Your task to perform on an android device: set the stopwatch Image 0: 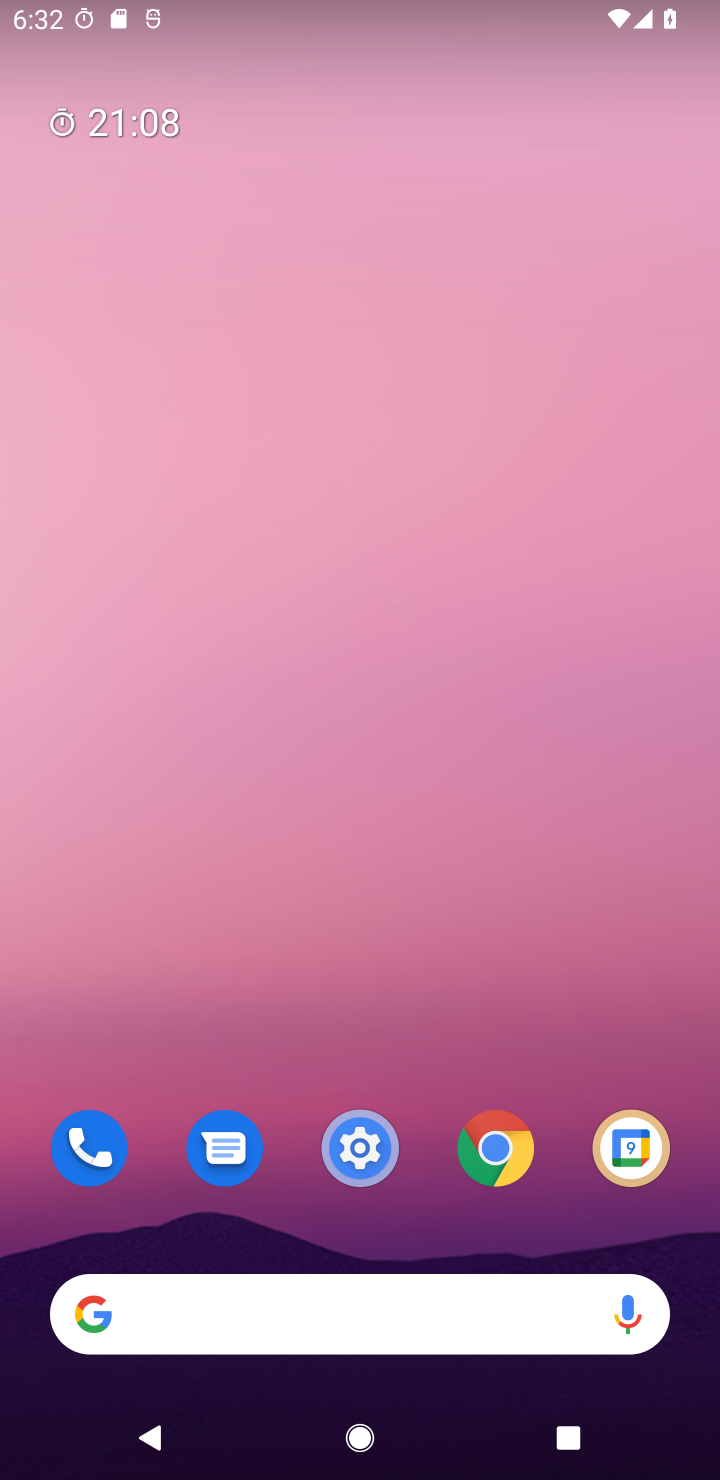
Step 0: drag from (304, 934) to (304, 263)
Your task to perform on an android device: set the stopwatch Image 1: 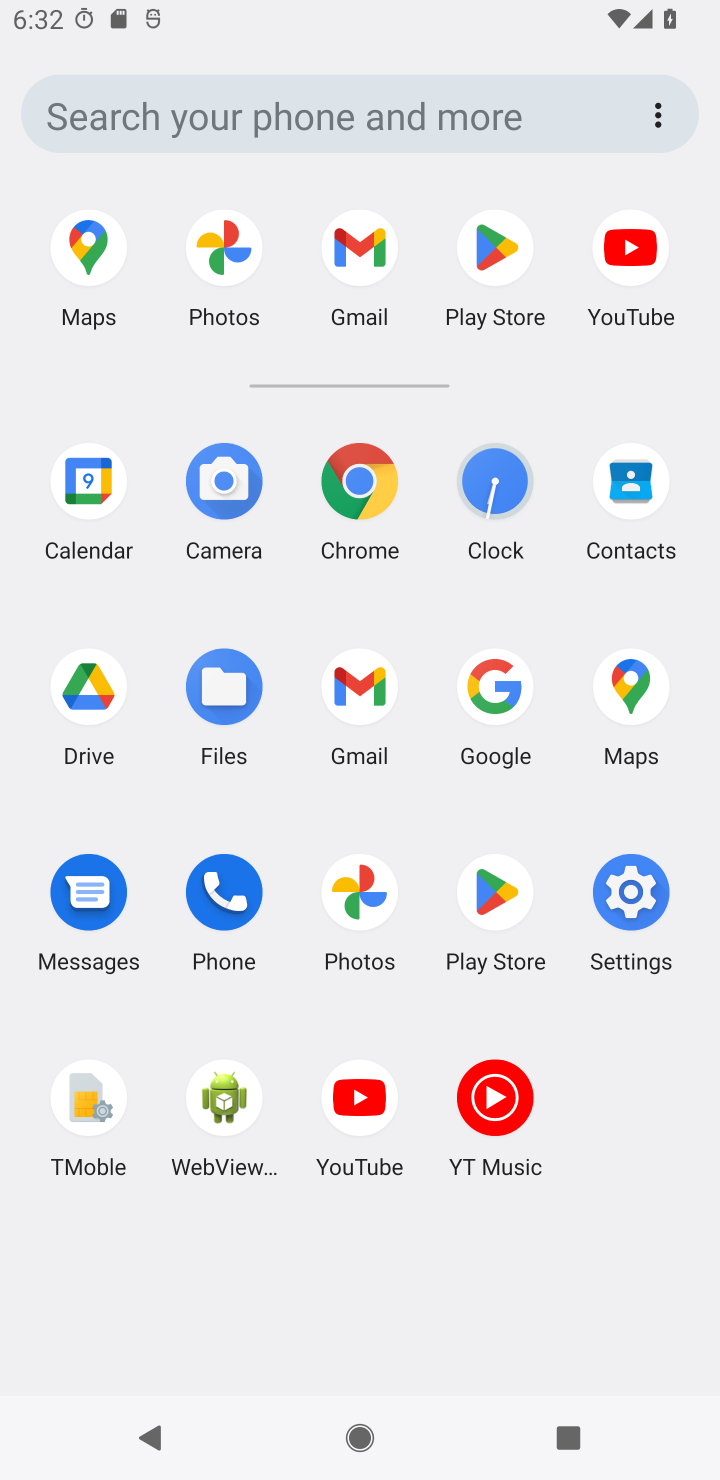
Step 1: click (496, 498)
Your task to perform on an android device: set the stopwatch Image 2: 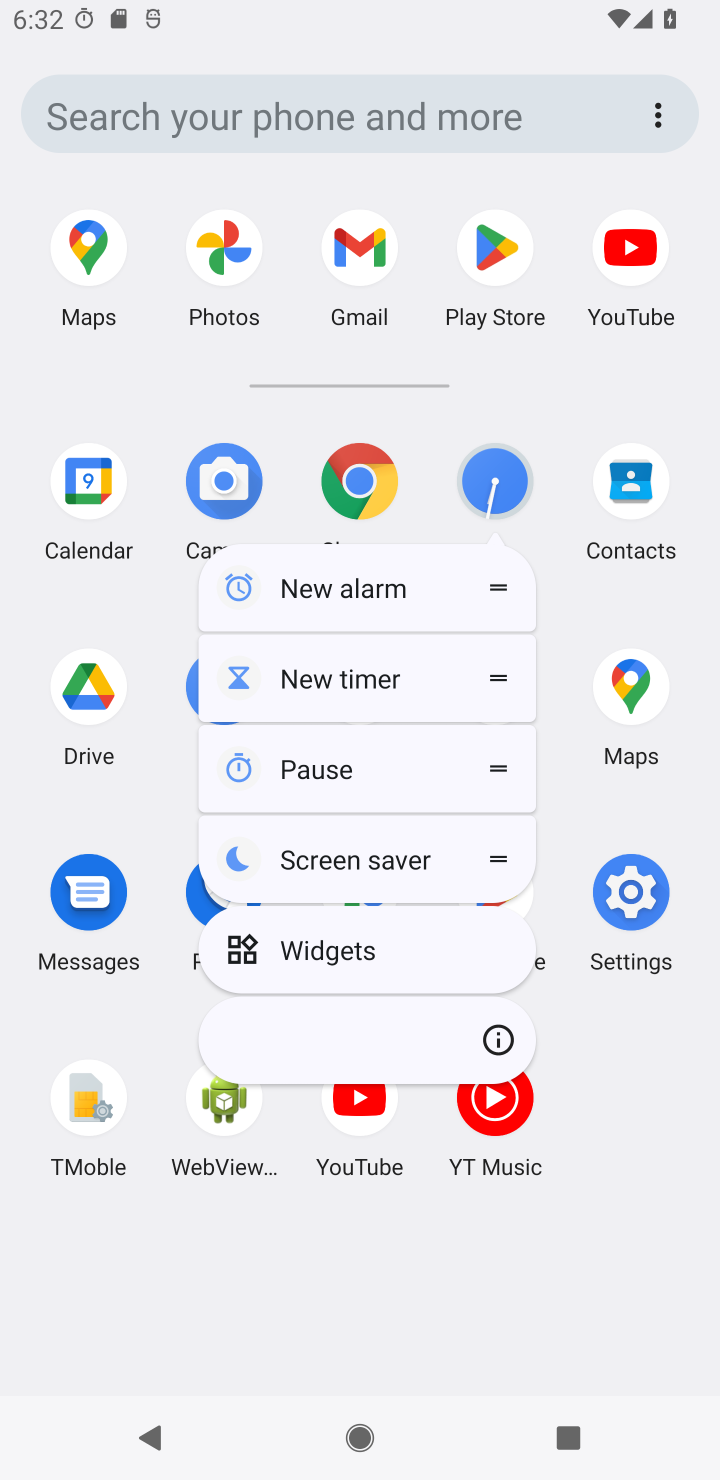
Step 2: click (494, 474)
Your task to perform on an android device: set the stopwatch Image 3: 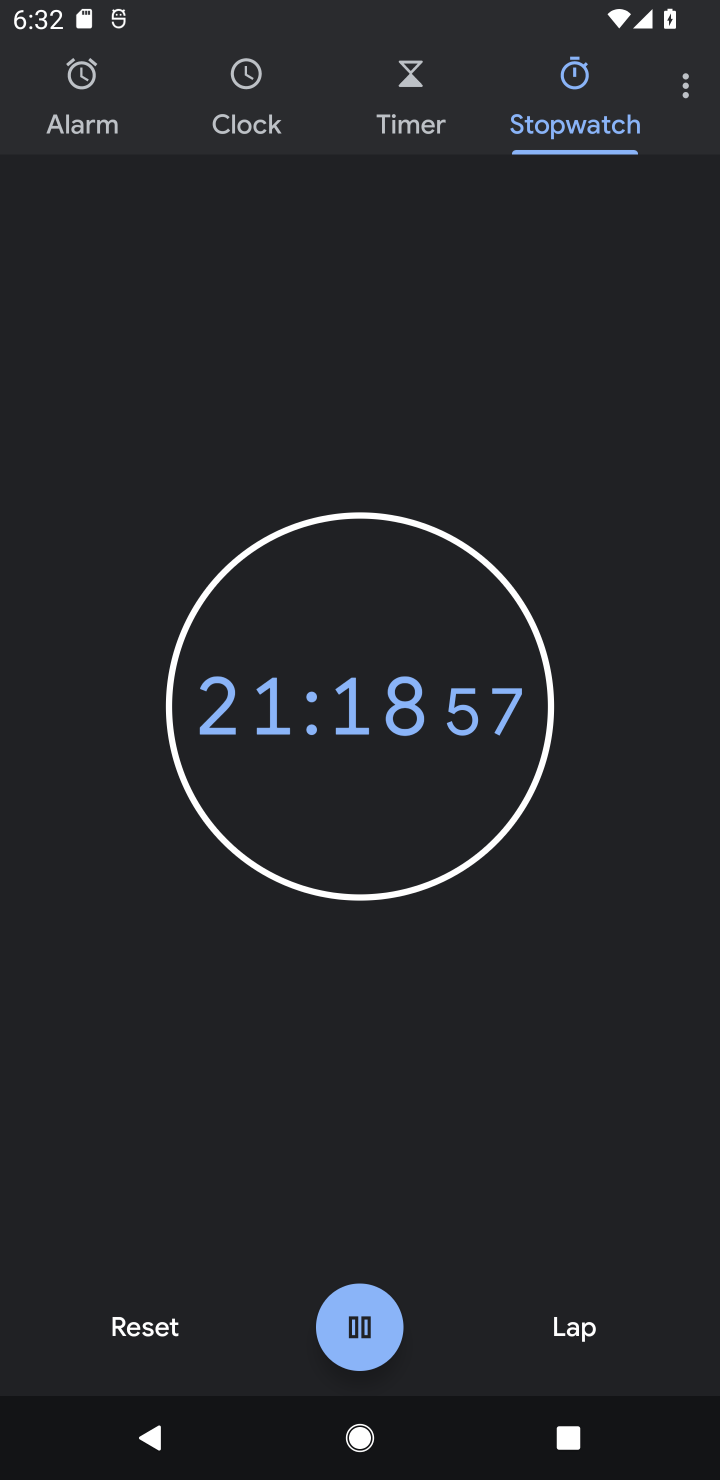
Step 3: click (138, 1331)
Your task to perform on an android device: set the stopwatch Image 4: 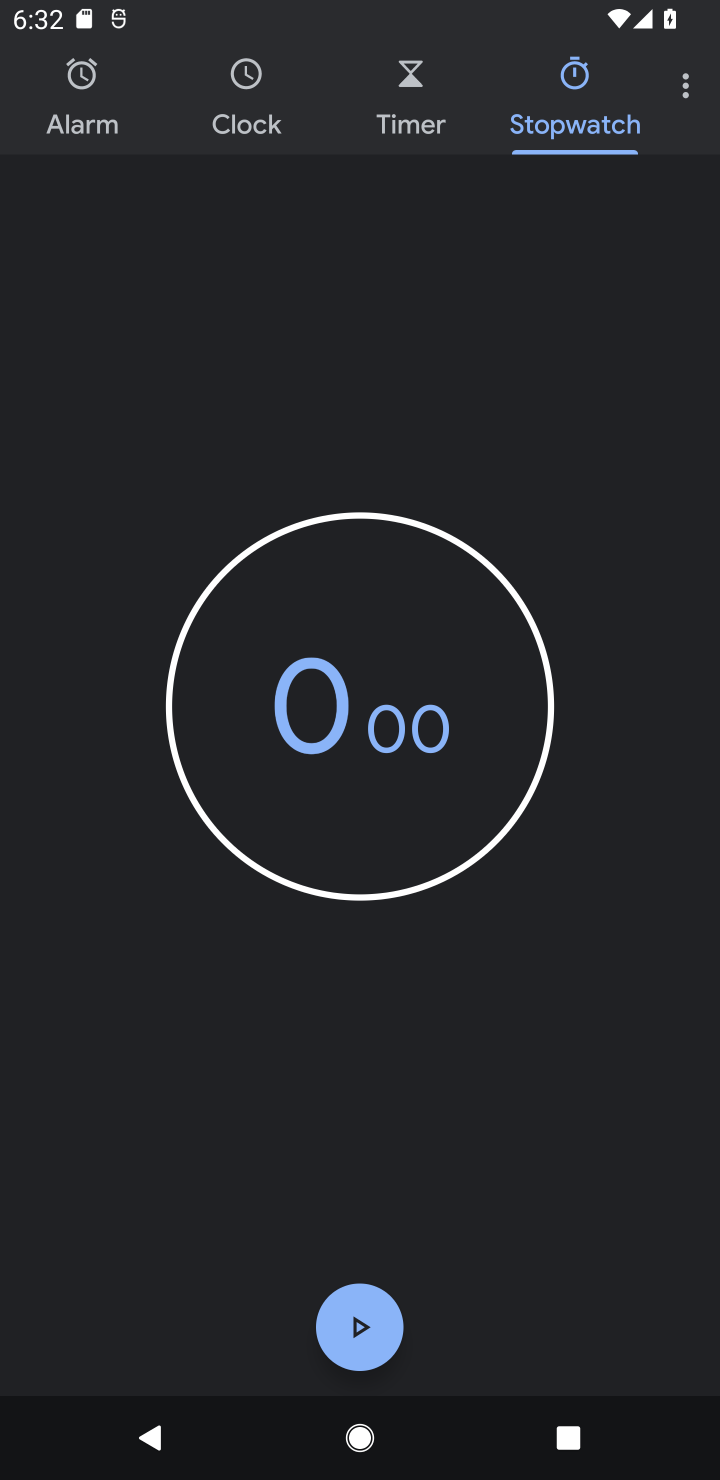
Step 4: click (363, 1322)
Your task to perform on an android device: set the stopwatch Image 5: 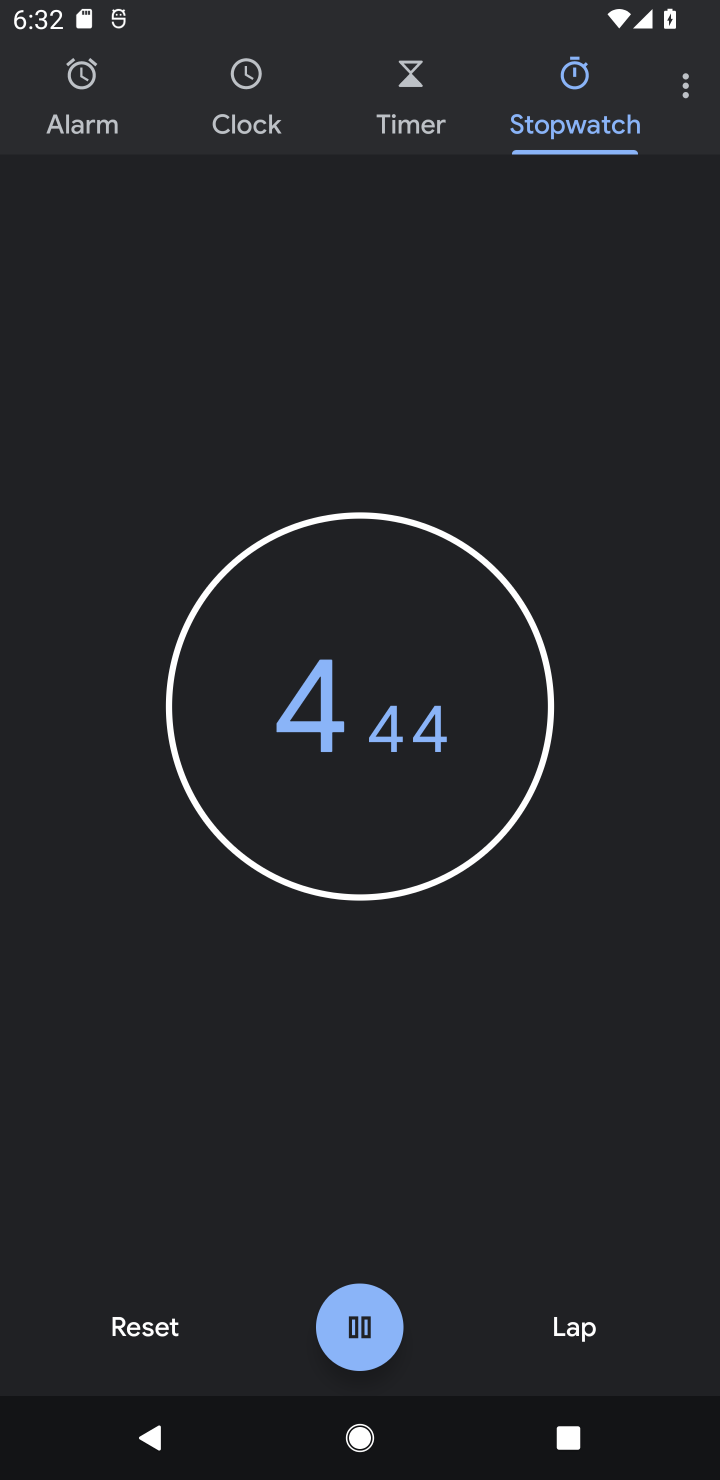
Step 5: task complete